Your task to perform on an android device: Turn on the flashlight Image 0: 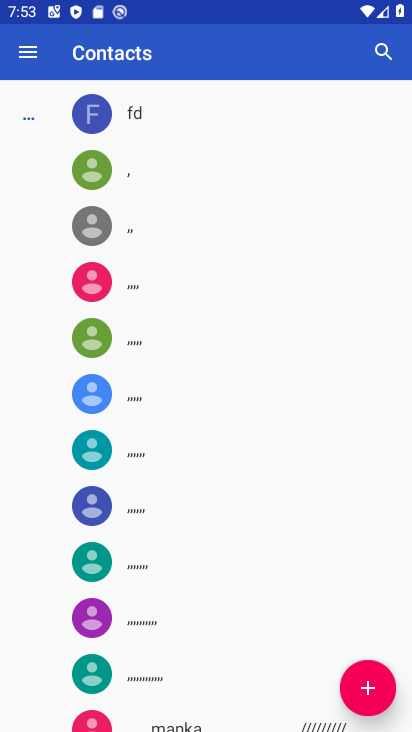
Step 0: press home button
Your task to perform on an android device: Turn on the flashlight Image 1: 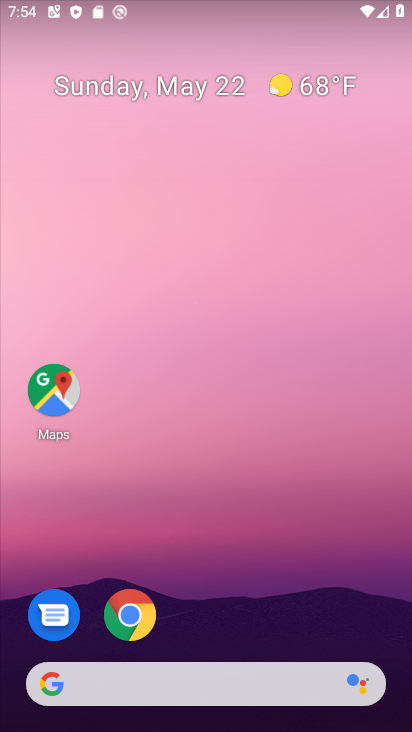
Step 1: drag from (224, 658) to (353, 4)
Your task to perform on an android device: Turn on the flashlight Image 2: 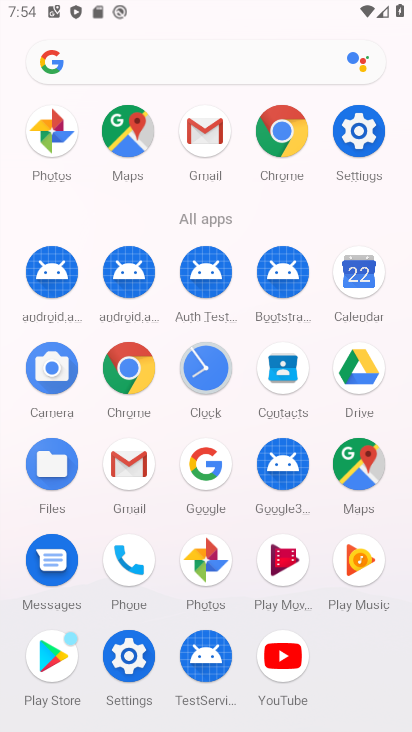
Step 2: click (343, 138)
Your task to perform on an android device: Turn on the flashlight Image 3: 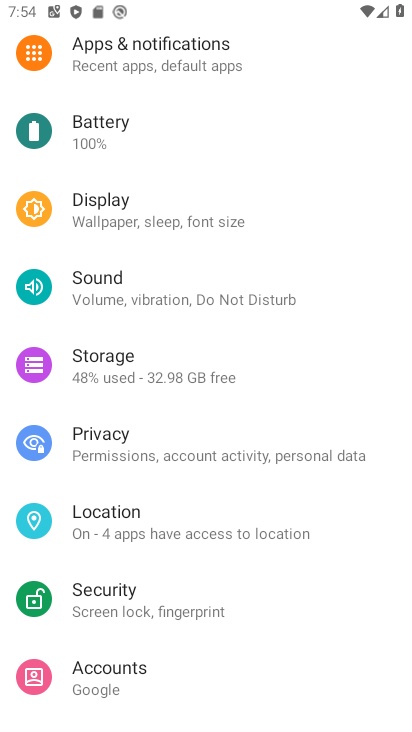
Step 3: task complete